Your task to perform on an android device: Search for Mexican restaurants on Maps Image 0: 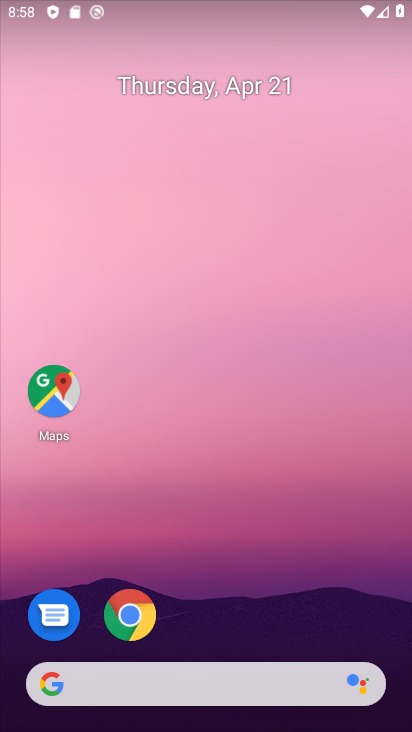
Step 0: drag from (205, 689) to (205, 144)
Your task to perform on an android device: Search for Mexican restaurants on Maps Image 1: 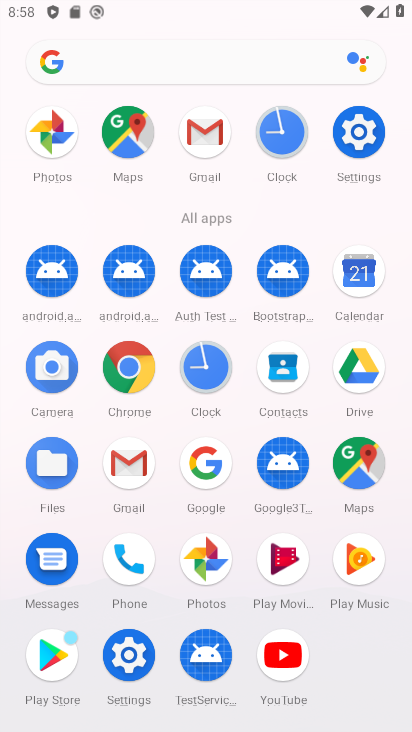
Step 1: click (358, 463)
Your task to perform on an android device: Search for Mexican restaurants on Maps Image 2: 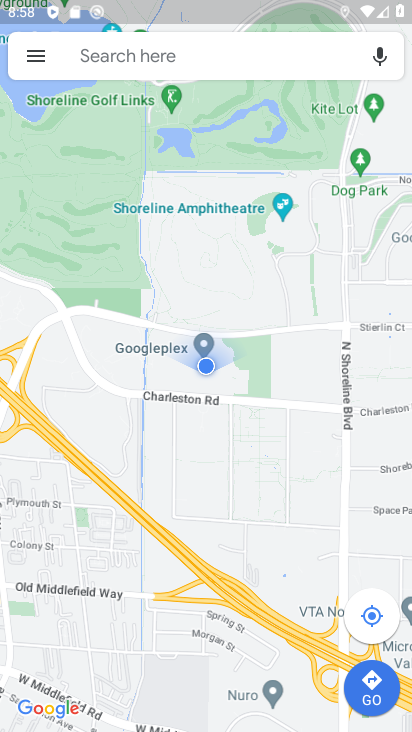
Step 2: click (203, 47)
Your task to perform on an android device: Search for Mexican restaurants on Maps Image 3: 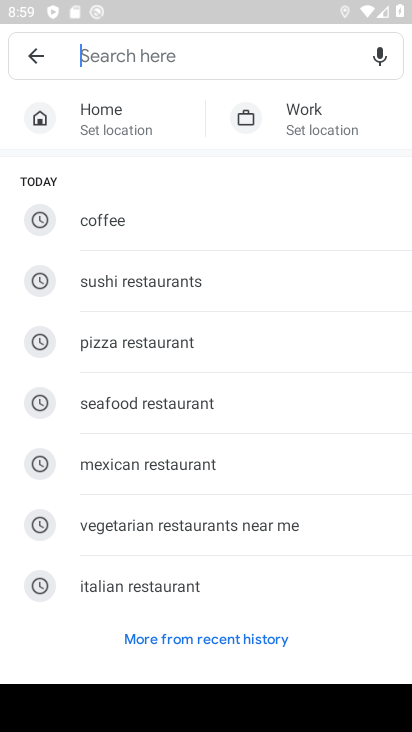
Step 3: type "Mexican restaurants"
Your task to perform on an android device: Search for Mexican restaurants on Maps Image 4: 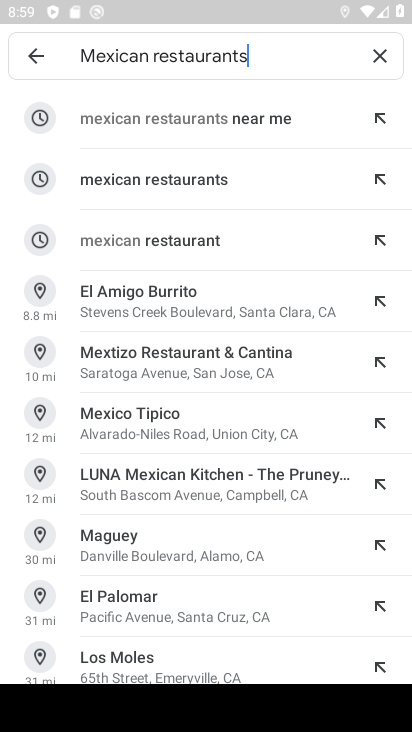
Step 4: click (172, 178)
Your task to perform on an android device: Search for Mexican restaurants on Maps Image 5: 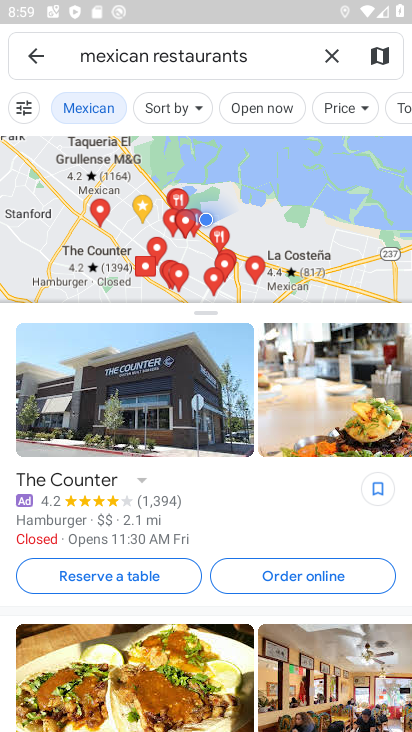
Step 5: task complete